Your task to perform on an android device: choose inbox layout in the gmail app Image 0: 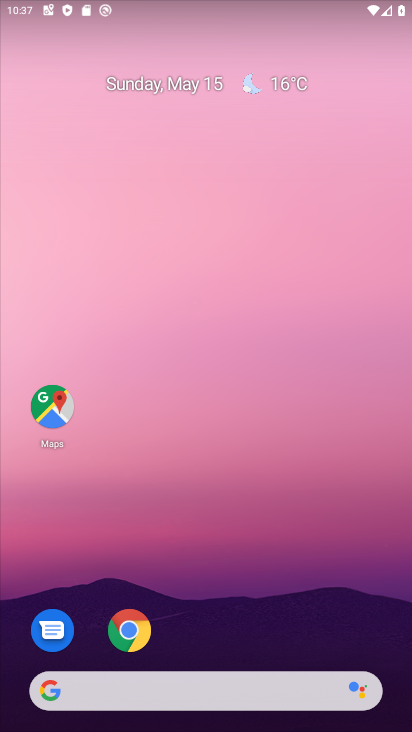
Step 0: drag from (217, 630) to (195, 247)
Your task to perform on an android device: choose inbox layout in the gmail app Image 1: 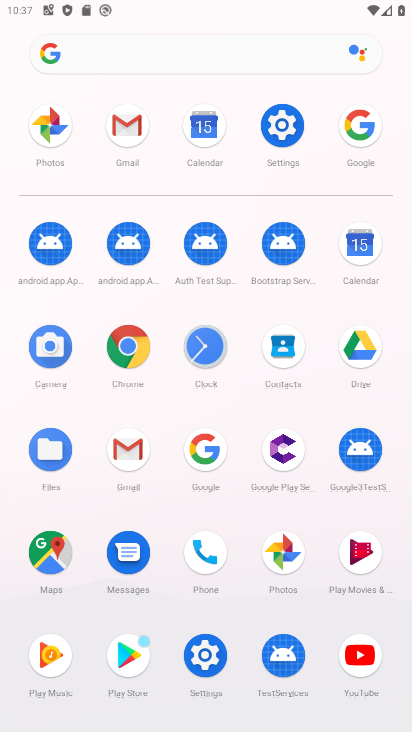
Step 1: click (133, 132)
Your task to perform on an android device: choose inbox layout in the gmail app Image 2: 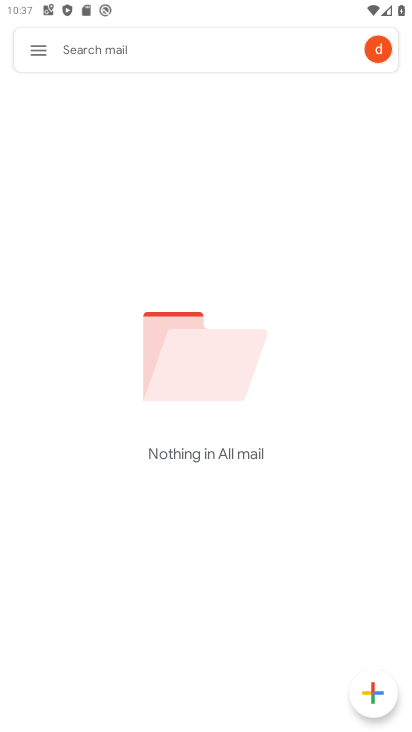
Step 2: click (35, 48)
Your task to perform on an android device: choose inbox layout in the gmail app Image 3: 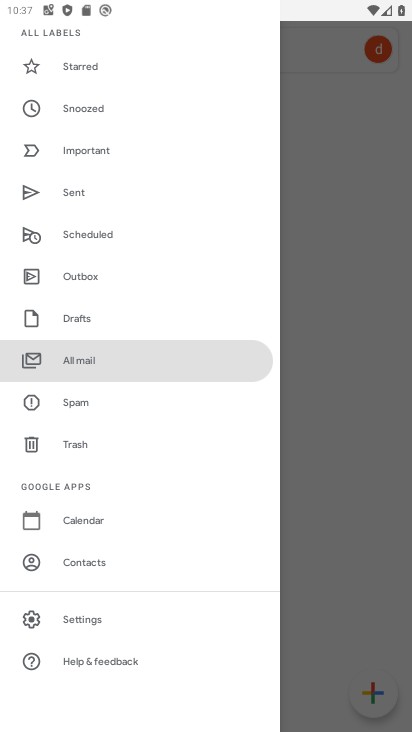
Step 3: click (100, 612)
Your task to perform on an android device: choose inbox layout in the gmail app Image 4: 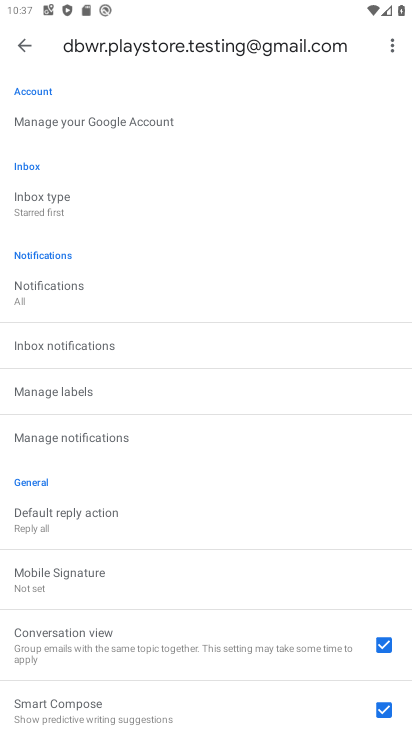
Step 4: click (121, 203)
Your task to perform on an android device: choose inbox layout in the gmail app Image 5: 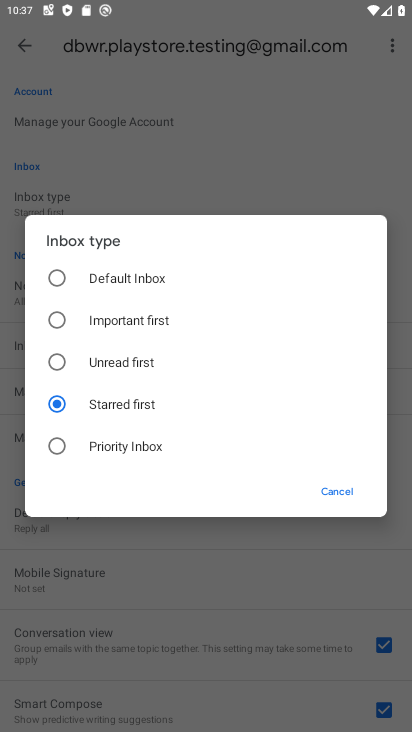
Step 5: click (99, 284)
Your task to perform on an android device: choose inbox layout in the gmail app Image 6: 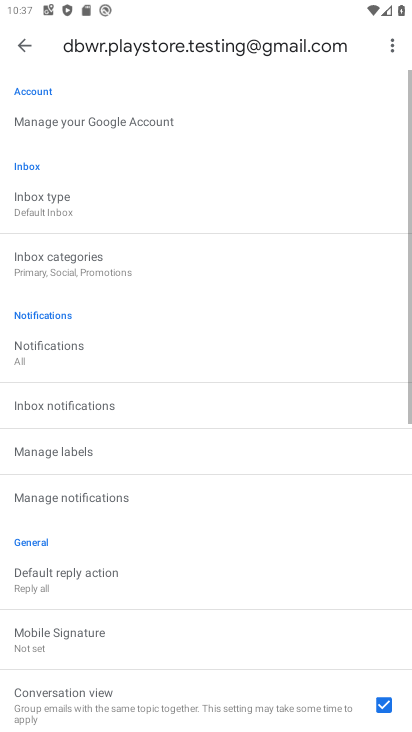
Step 6: task complete